Your task to perform on an android device: Is it going to rain today? Image 0: 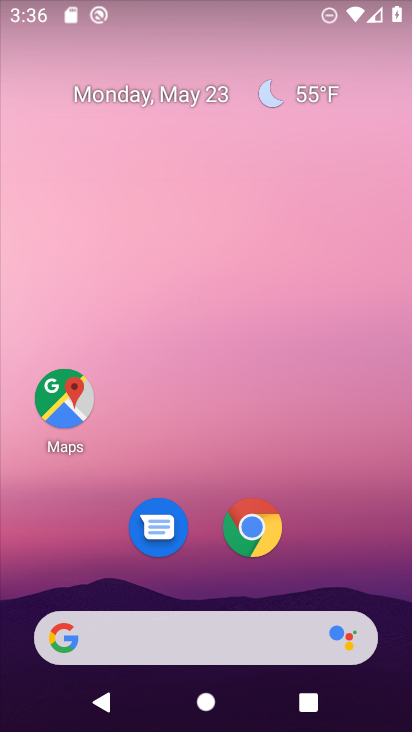
Step 0: click (315, 89)
Your task to perform on an android device: Is it going to rain today? Image 1: 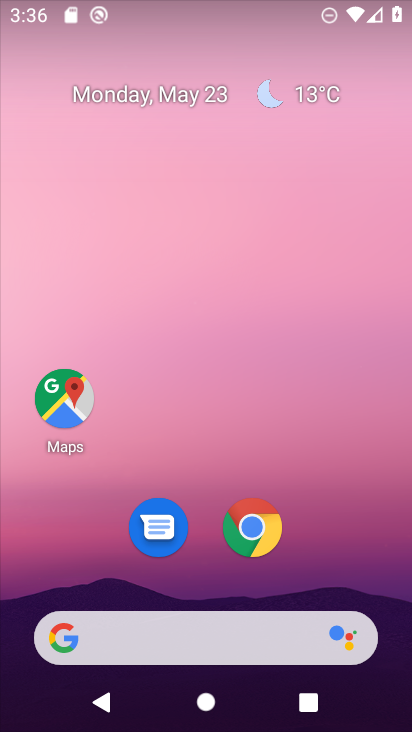
Step 1: click (313, 91)
Your task to perform on an android device: Is it going to rain today? Image 2: 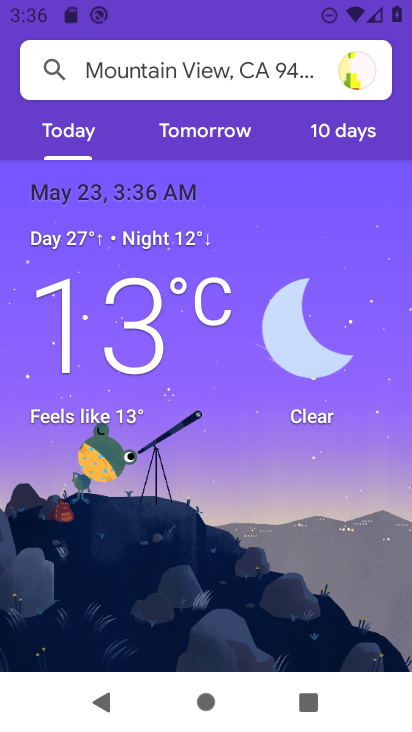
Step 2: task complete